Your task to perform on an android device: move an email to a new category in the gmail app Image 0: 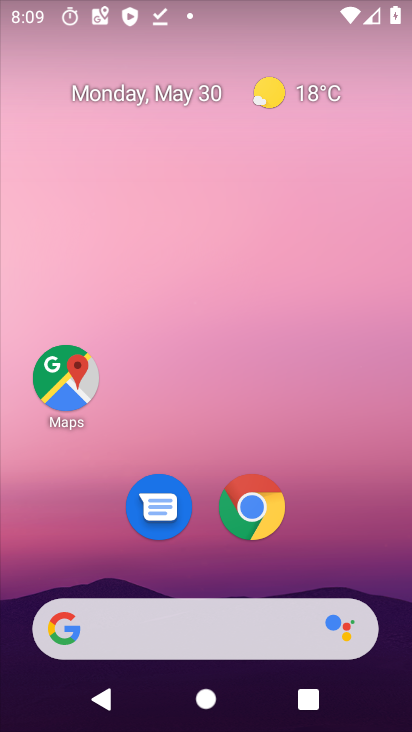
Step 0: drag from (381, 490) to (351, 39)
Your task to perform on an android device: move an email to a new category in the gmail app Image 1: 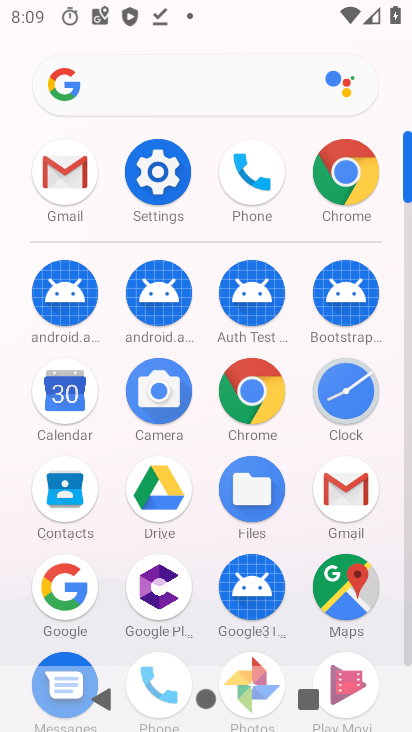
Step 1: click (327, 519)
Your task to perform on an android device: move an email to a new category in the gmail app Image 2: 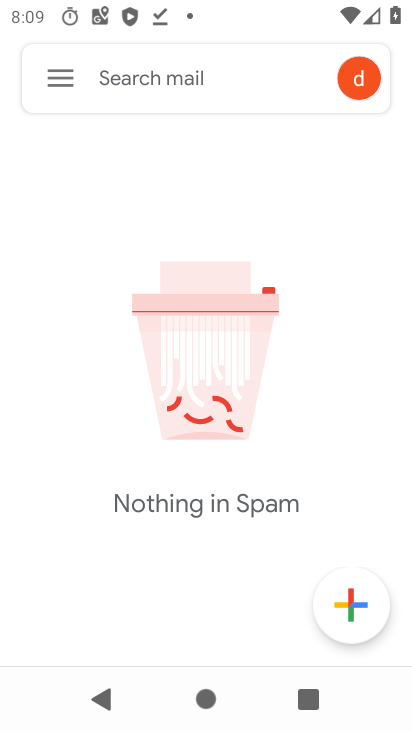
Step 2: click (43, 82)
Your task to perform on an android device: move an email to a new category in the gmail app Image 3: 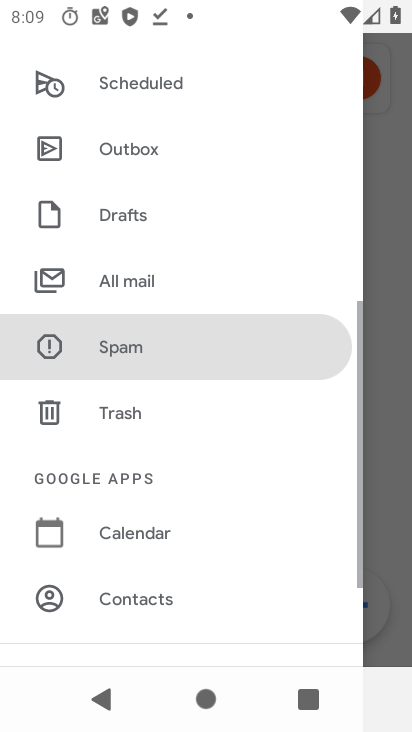
Step 3: click (162, 282)
Your task to perform on an android device: move an email to a new category in the gmail app Image 4: 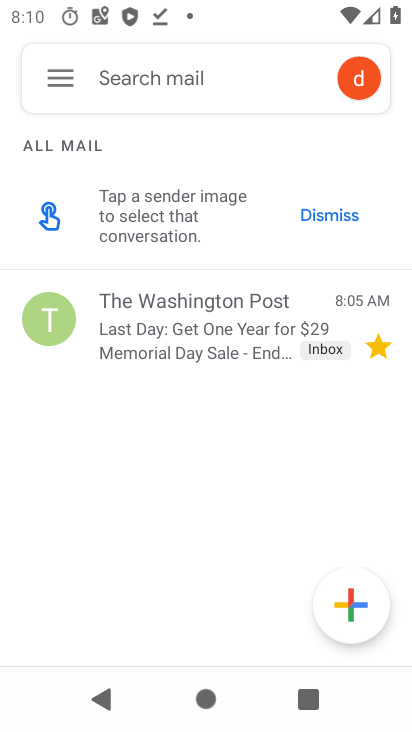
Step 4: click (278, 316)
Your task to perform on an android device: move an email to a new category in the gmail app Image 5: 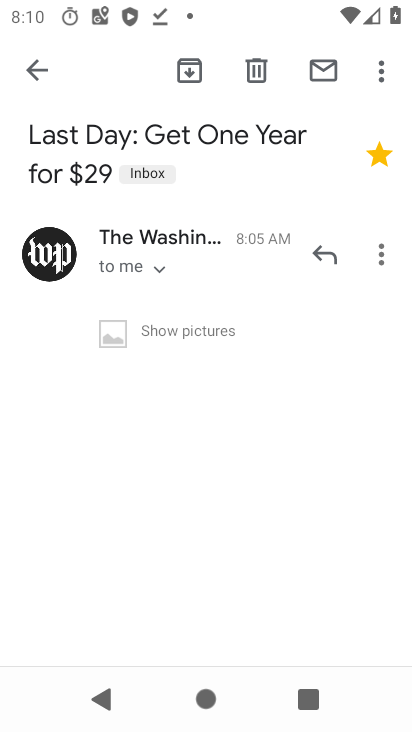
Step 5: click (386, 52)
Your task to perform on an android device: move an email to a new category in the gmail app Image 6: 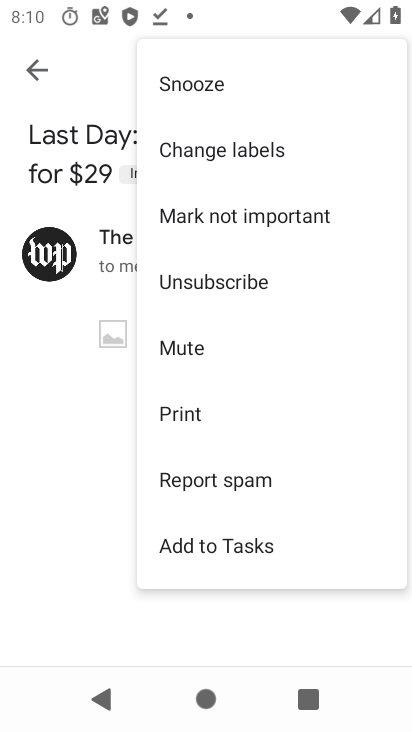
Step 6: task complete